Your task to perform on an android device: turn notification dots off Image 0: 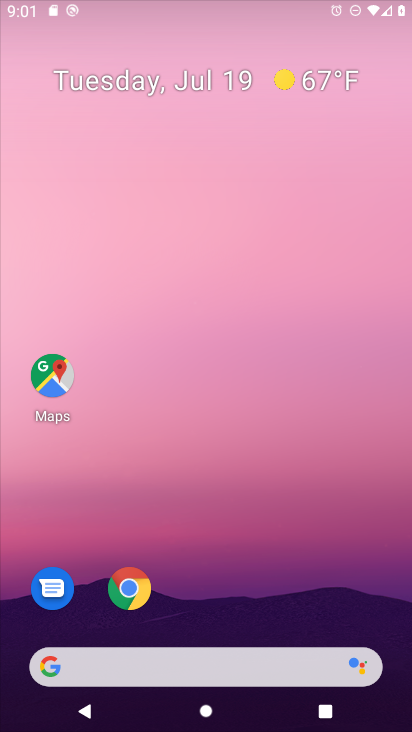
Step 0: drag from (314, 586) to (361, 76)
Your task to perform on an android device: turn notification dots off Image 1: 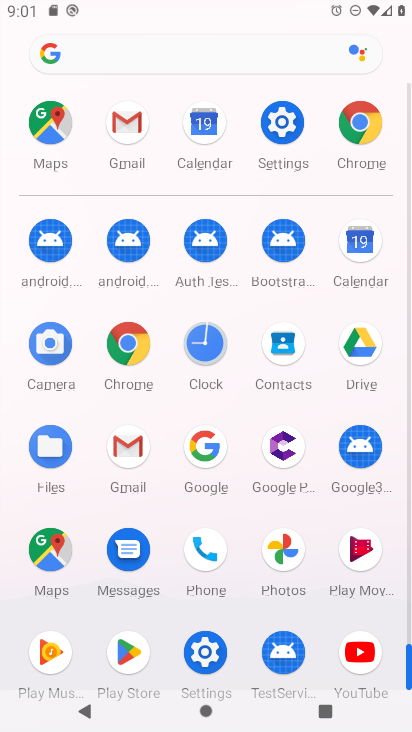
Step 1: click (292, 129)
Your task to perform on an android device: turn notification dots off Image 2: 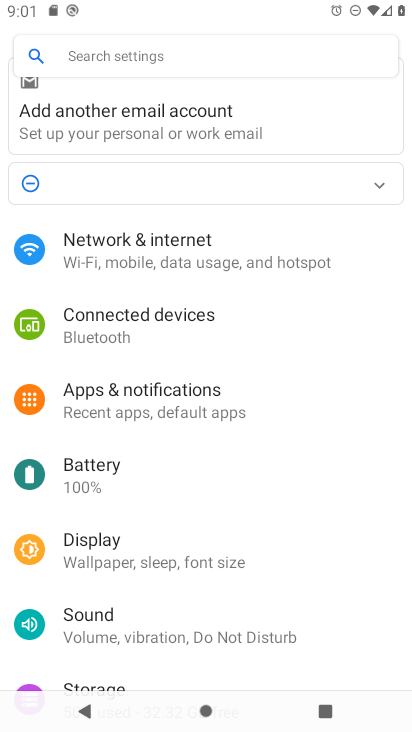
Step 2: drag from (374, 568) to (353, 204)
Your task to perform on an android device: turn notification dots off Image 3: 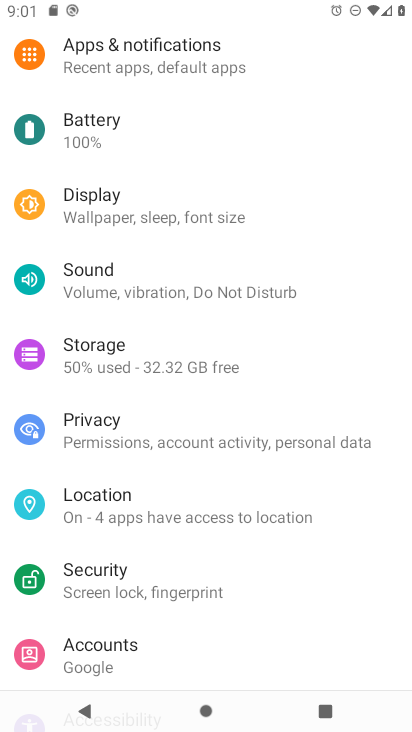
Step 3: drag from (322, 193) to (339, 399)
Your task to perform on an android device: turn notification dots off Image 4: 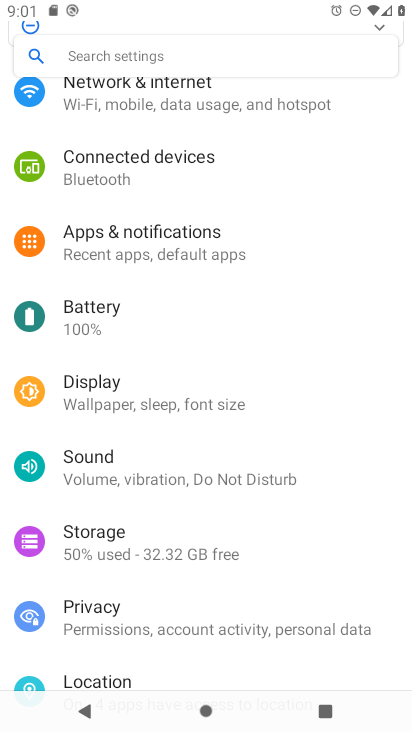
Step 4: click (208, 252)
Your task to perform on an android device: turn notification dots off Image 5: 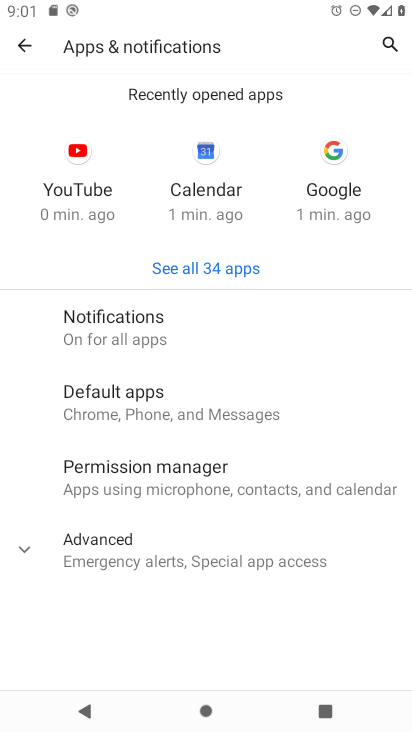
Step 5: click (216, 319)
Your task to perform on an android device: turn notification dots off Image 6: 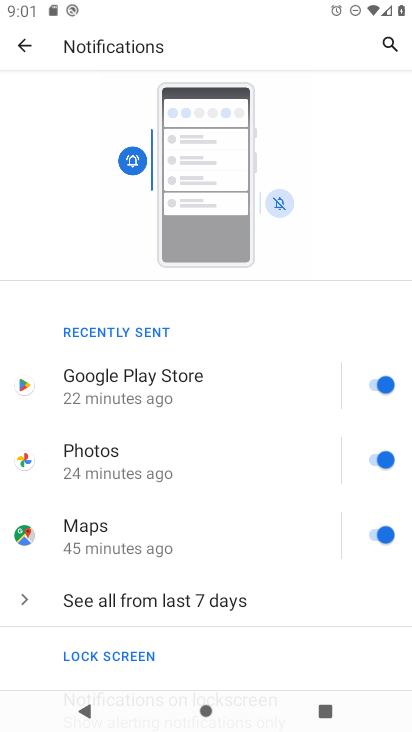
Step 6: drag from (263, 503) to (255, 387)
Your task to perform on an android device: turn notification dots off Image 7: 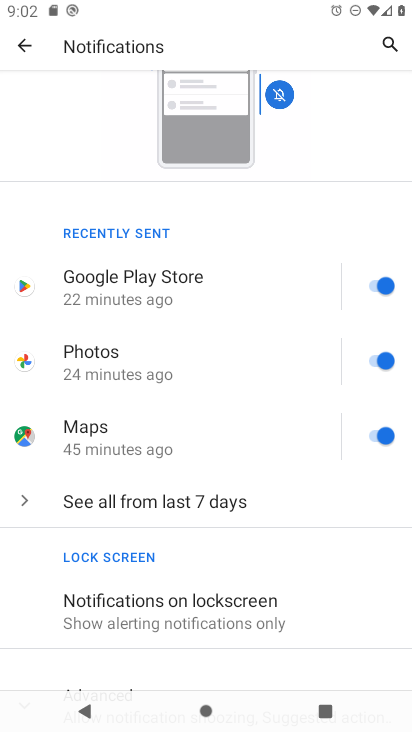
Step 7: drag from (317, 593) to (300, 362)
Your task to perform on an android device: turn notification dots off Image 8: 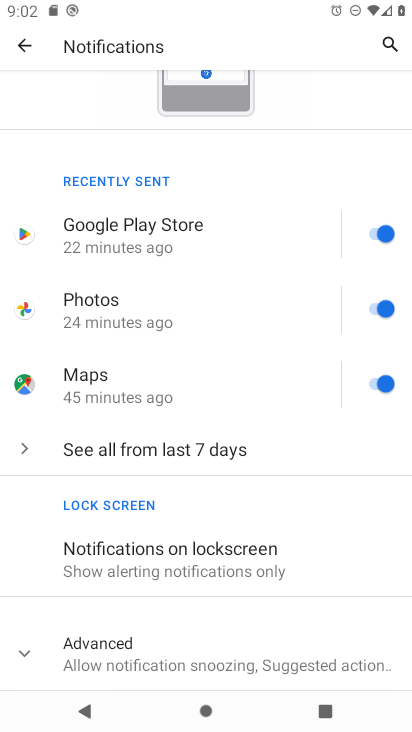
Step 8: click (275, 639)
Your task to perform on an android device: turn notification dots off Image 9: 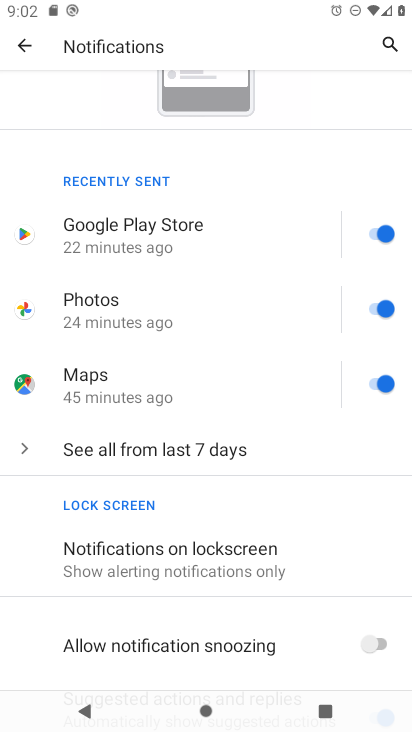
Step 9: task complete